Your task to perform on an android device: Clear the cart on costco.com. Search for acer predator on costco.com, select the first entry, and add it to the cart. Image 0: 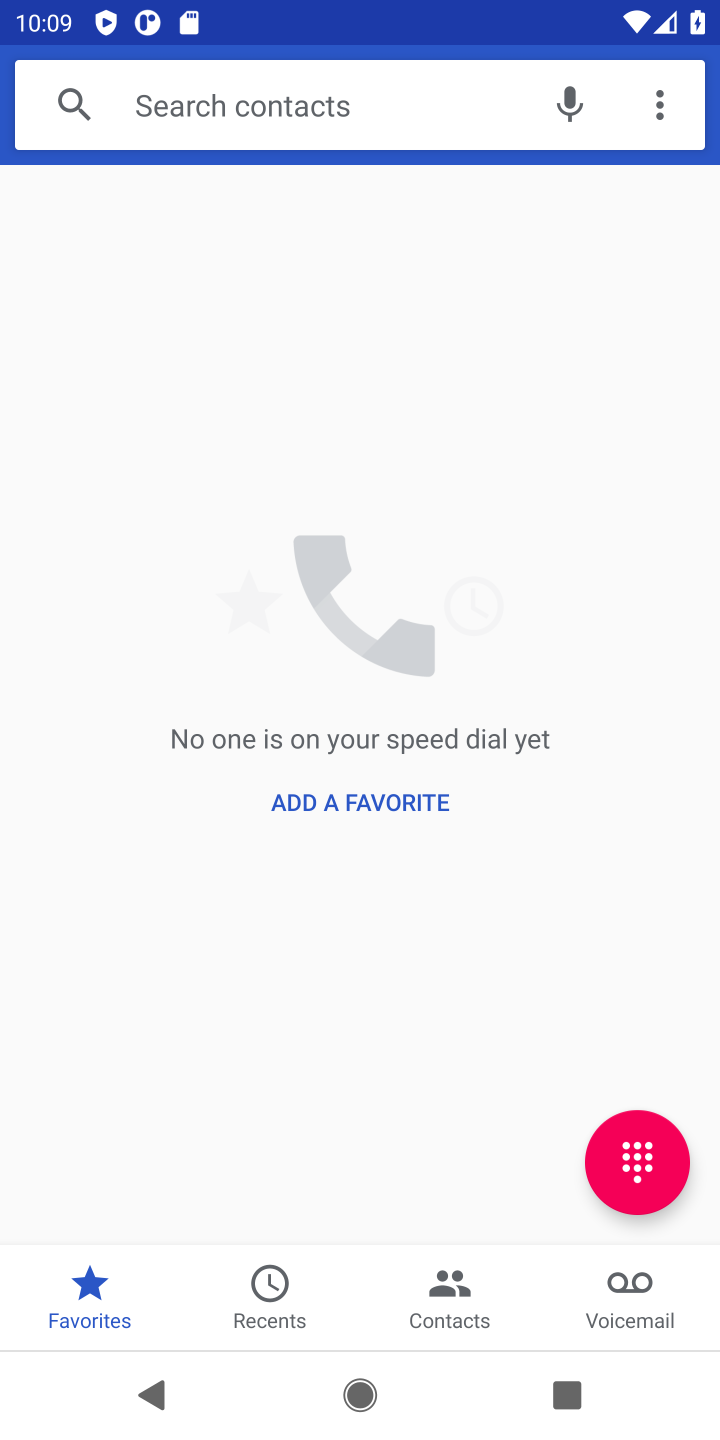
Step 0: press home button
Your task to perform on an android device: Clear the cart on costco.com. Search for acer predator on costco.com, select the first entry, and add it to the cart. Image 1: 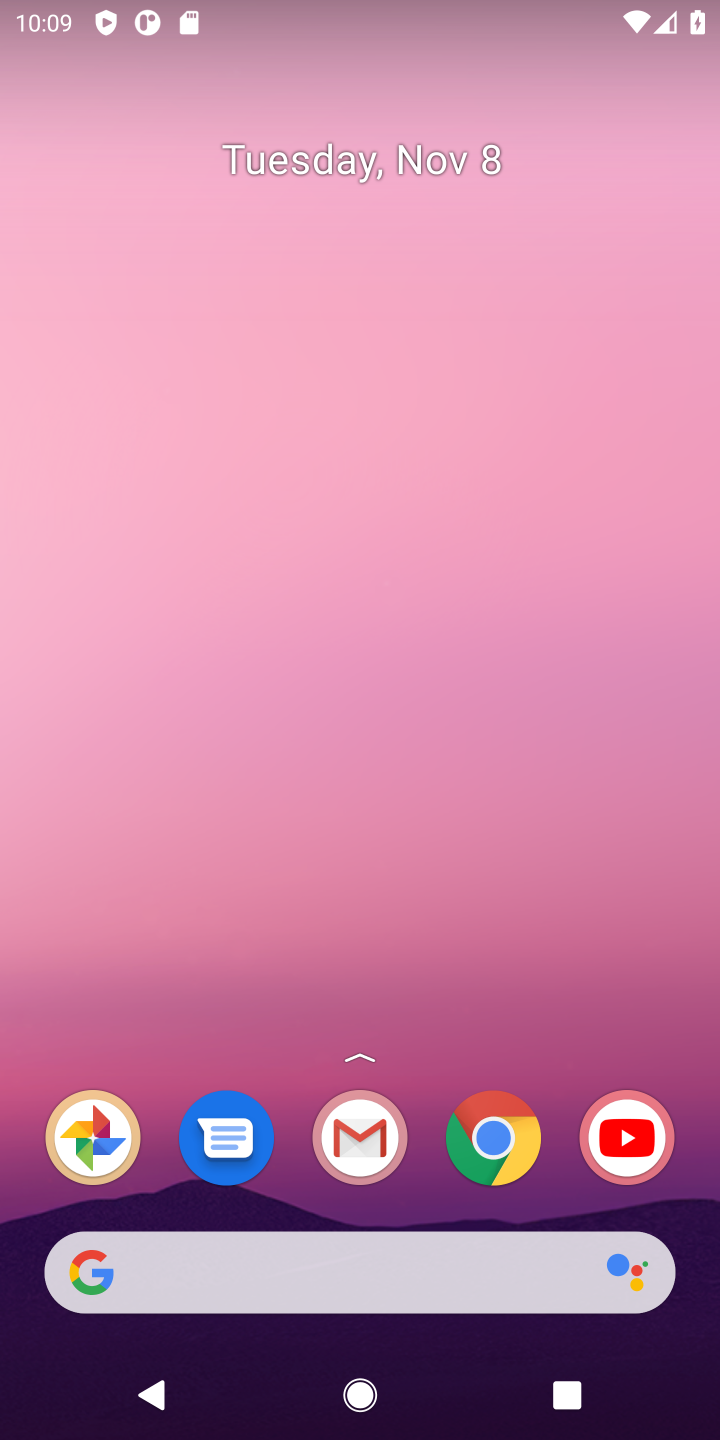
Step 1: click (505, 1136)
Your task to perform on an android device: Clear the cart on costco.com. Search for acer predator on costco.com, select the first entry, and add it to the cart. Image 2: 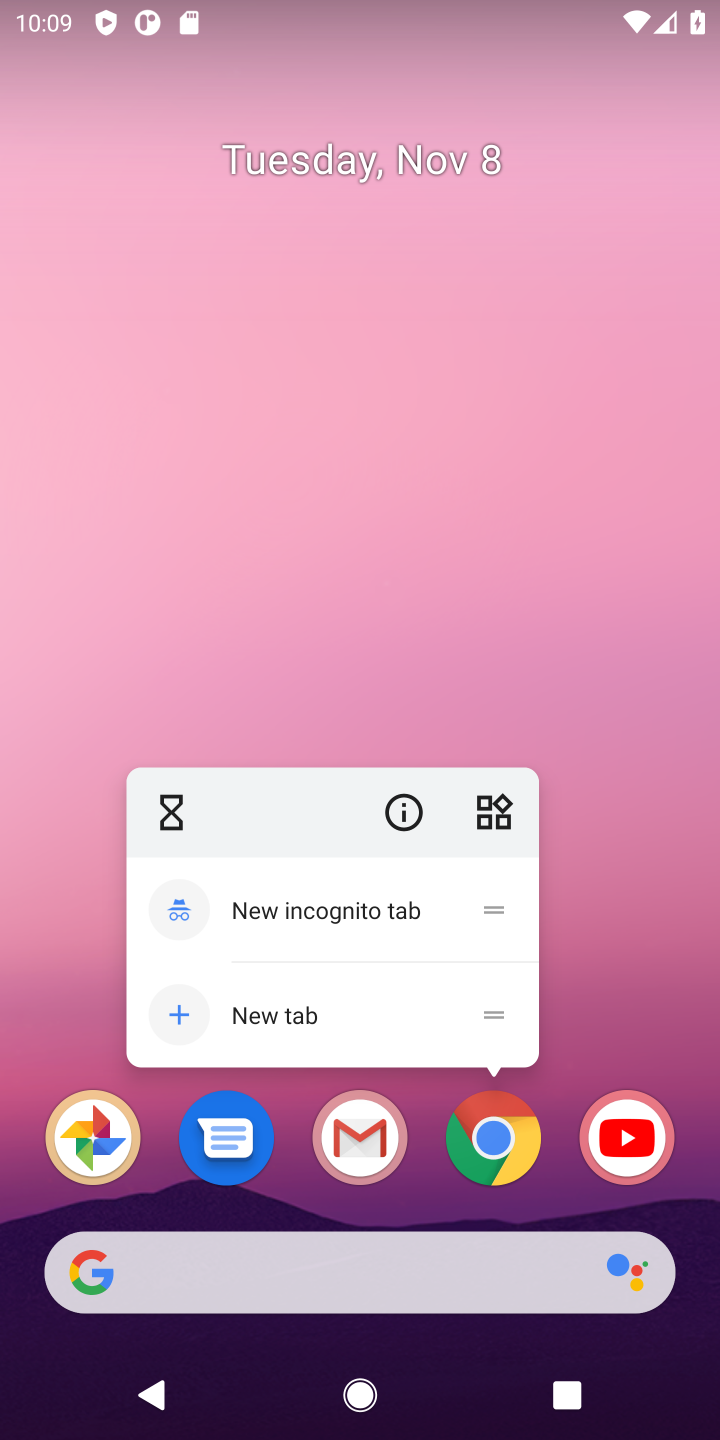
Step 2: click (499, 1128)
Your task to perform on an android device: Clear the cart on costco.com. Search for acer predator on costco.com, select the first entry, and add it to the cart. Image 3: 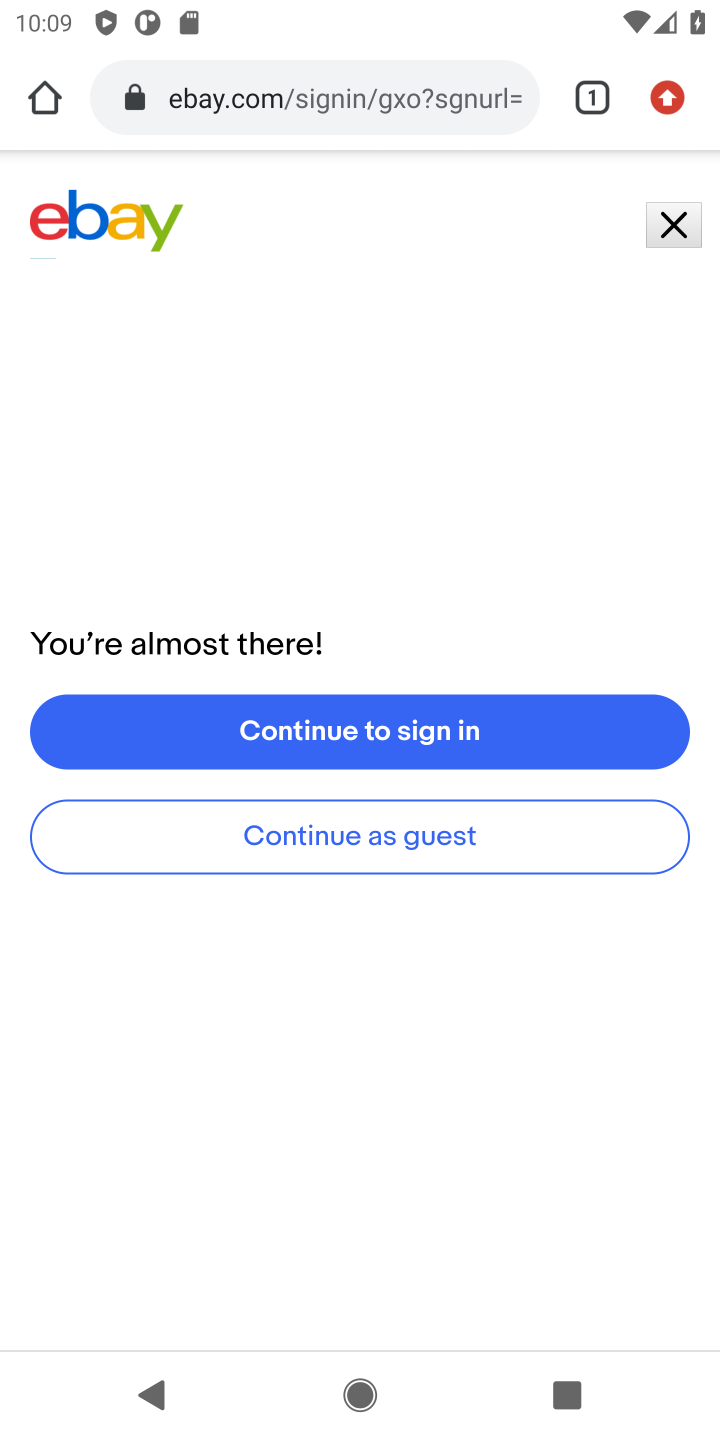
Step 3: click (363, 86)
Your task to perform on an android device: Clear the cart on costco.com. Search for acer predator on costco.com, select the first entry, and add it to the cart. Image 4: 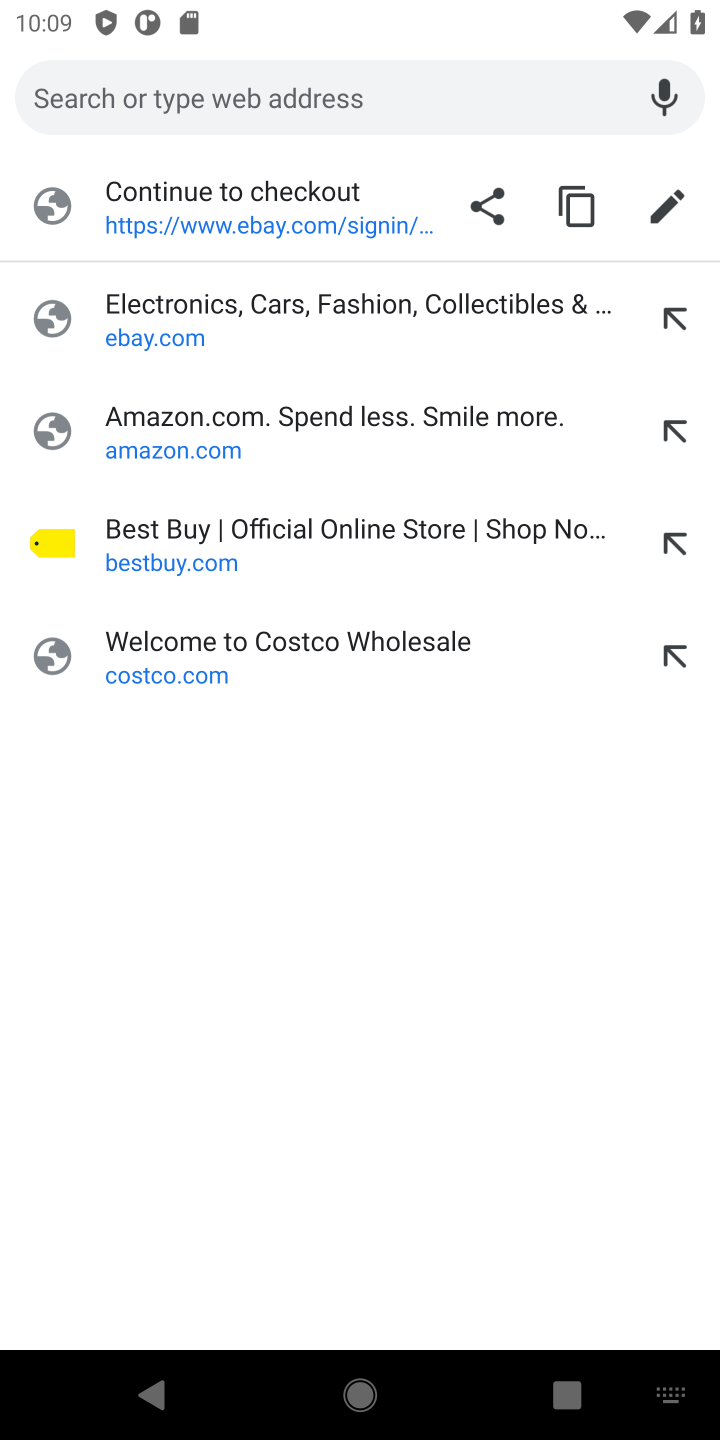
Step 4: click (183, 672)
Your task to perform on an android device: Clear the cart on costco.com. Search for acer predator on costco.com, select the first entry, and add it to the cart. Image 5: 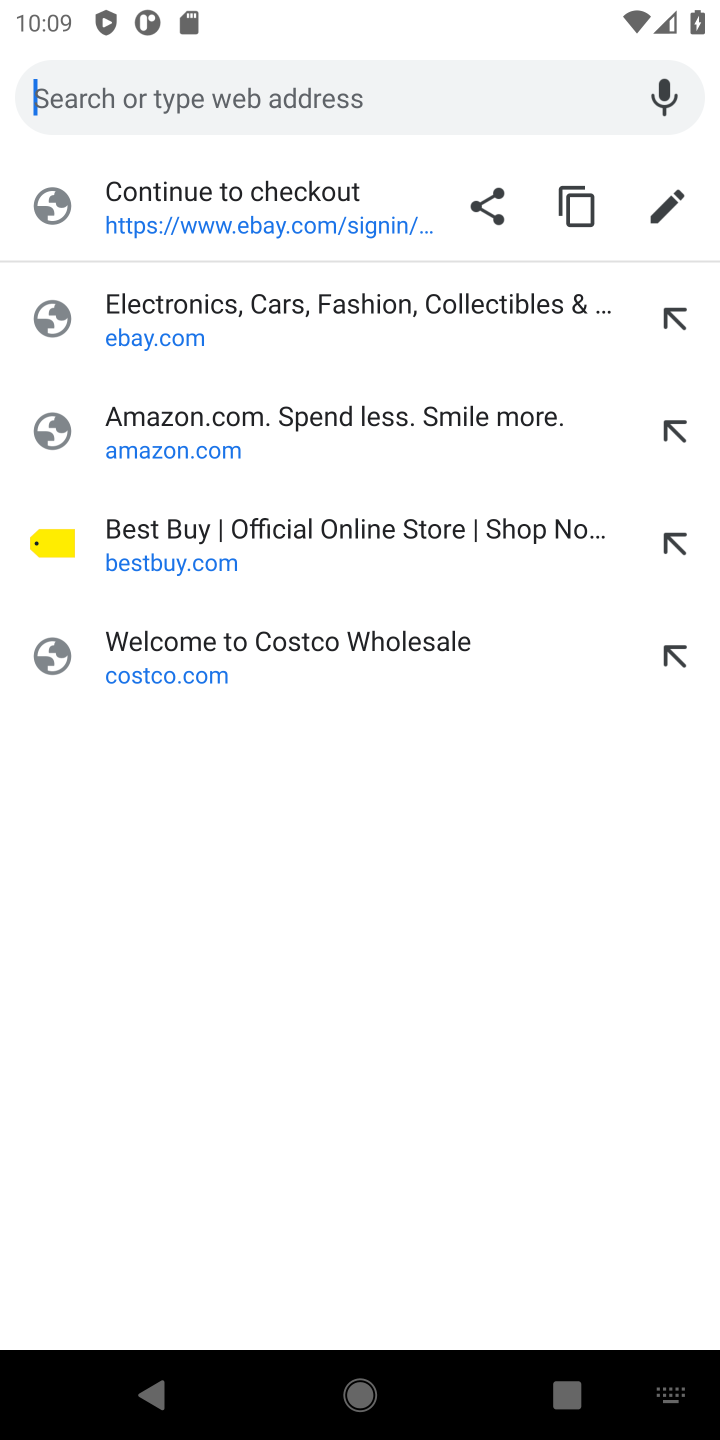
Step 5: click (186, 655)
Your task to perform on an android device: Clear the cart on costco.com. Search for acer predator on costco.com, select the first entry, and add it to the cart. Image 6: 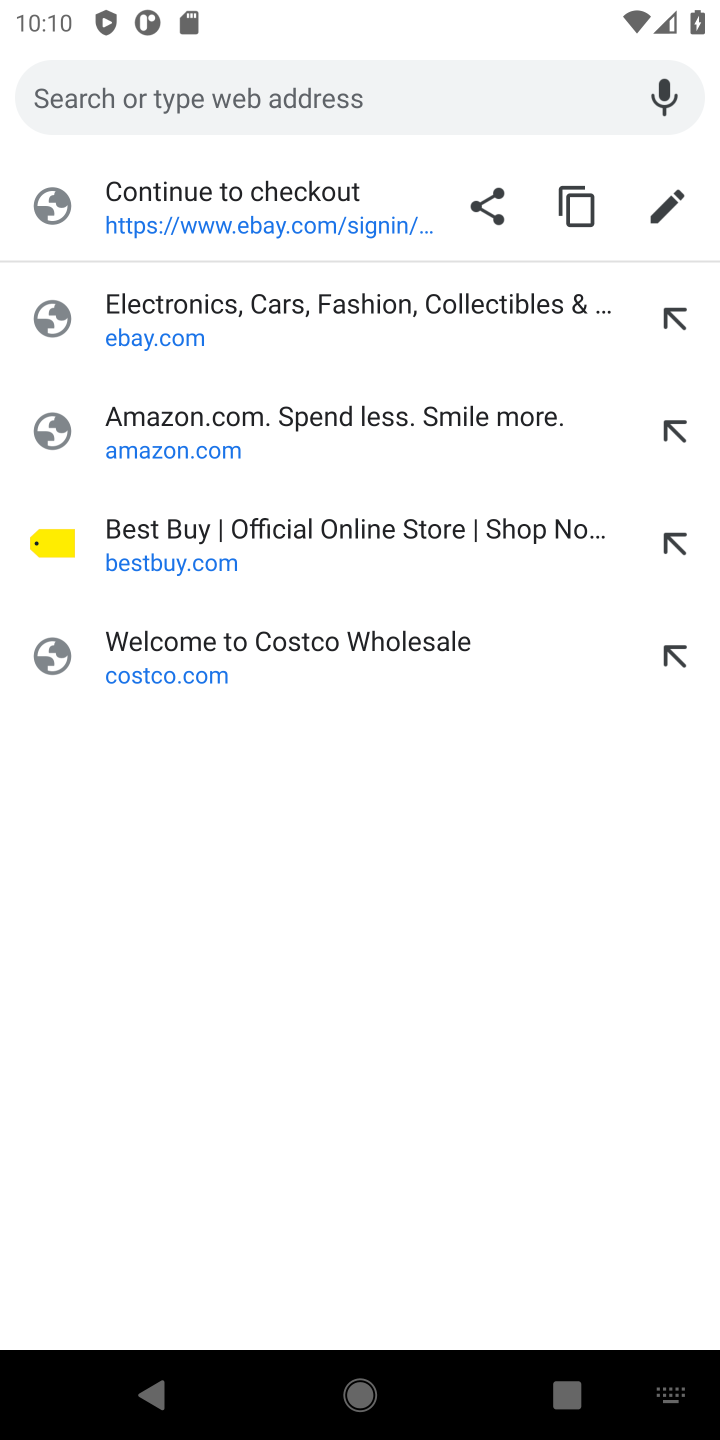
Step 6: click (169, 673)
Your task to perform on an android device: Clear the cart on costco.com. Search for acer predator on costco.com, select the first entry, and add it to the cart. Image 7: 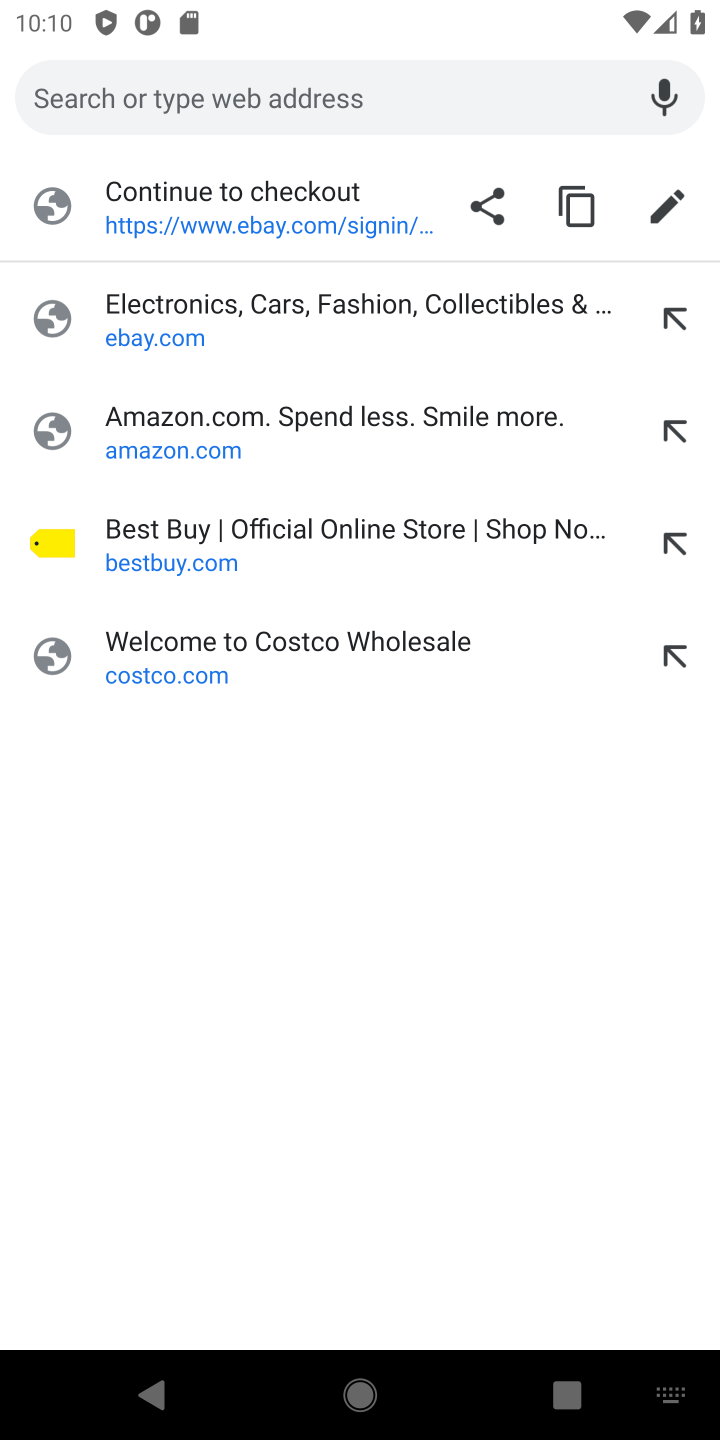
Step 7: click (144, 651)
Your task to perform on an android device: Clear the cart on costco.com. Search for acer predator on costco.com, select the first entry, and add it to the cart. Image 8: 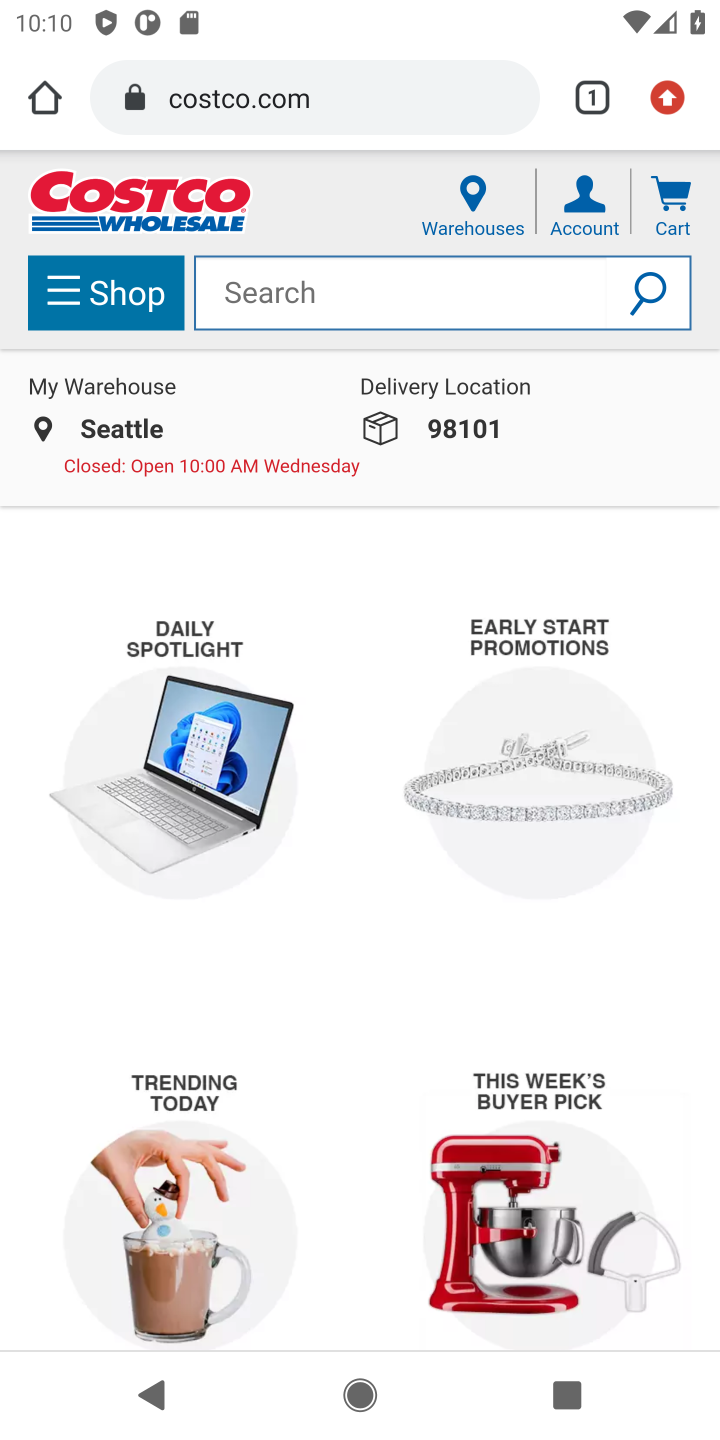
Step 8: click (374, 284)
Your task to perform on an android device: Clear the cart on costco.com. Search for acer predator on costco.com, select the first entry, and add it to the cart. Image 9: 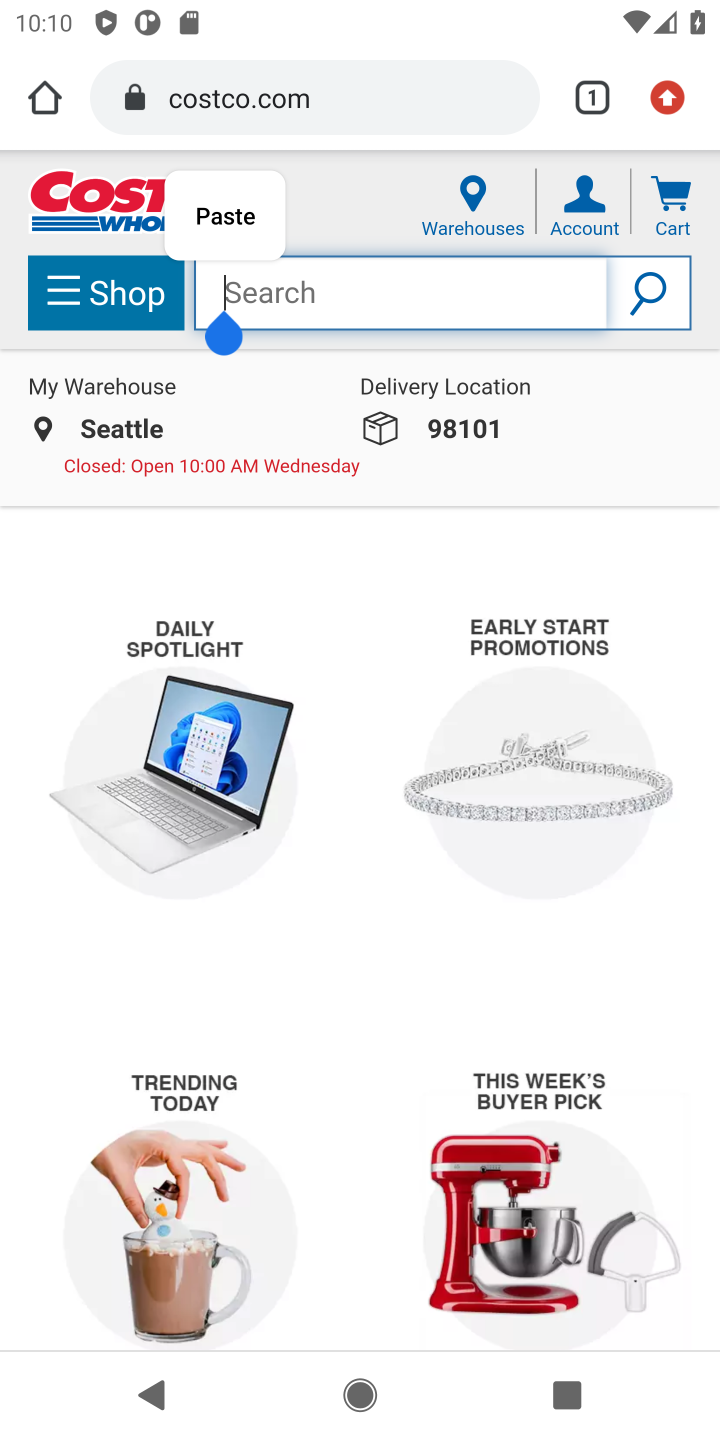
Step 9: type "acer predator"
Your task to perform on an android device: Clear the cart on costco.com. Search for acer predator on costco.com, select the first entry, and add it to the cart. Image 10: 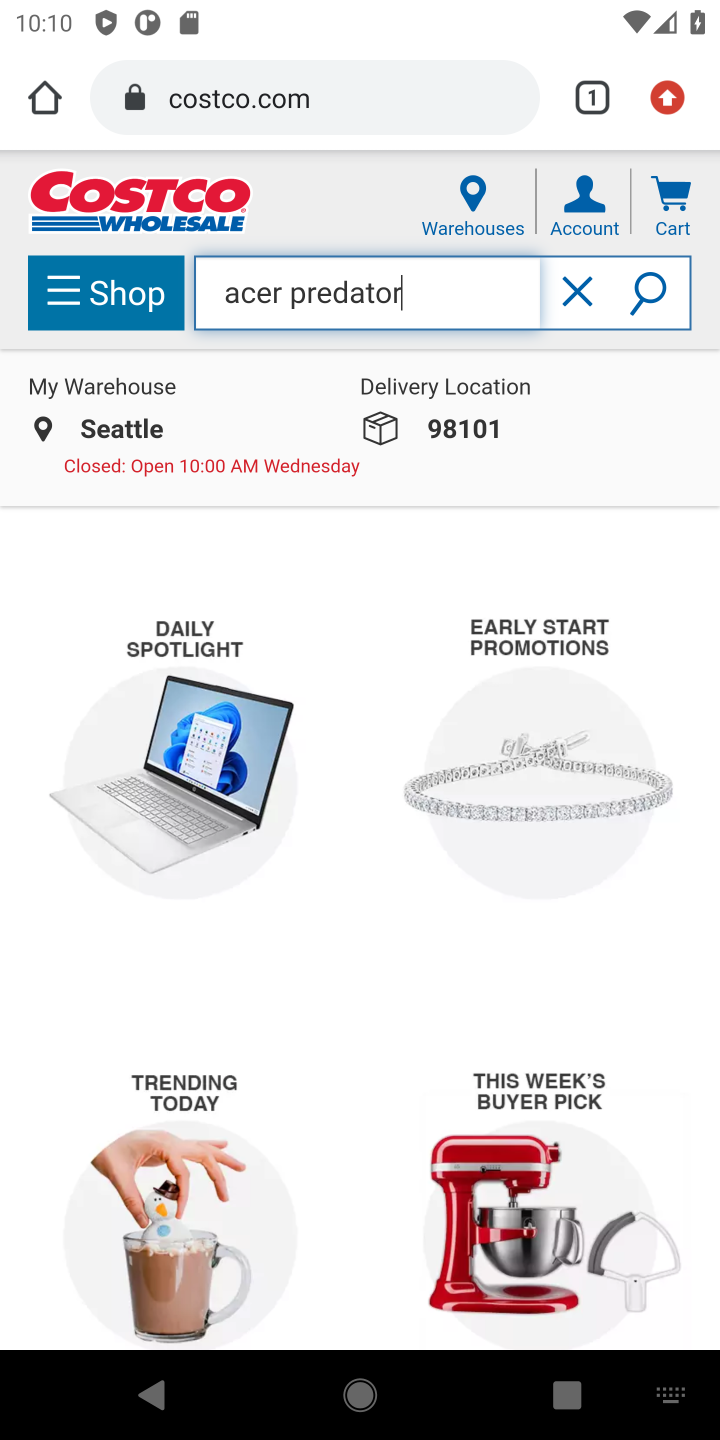
Step 10: press enter
Your task to perform on an android device: Clear the cart on costco.com. Search for acer predator on costco.com, select the first entry, and add it to the cart. Image 11: 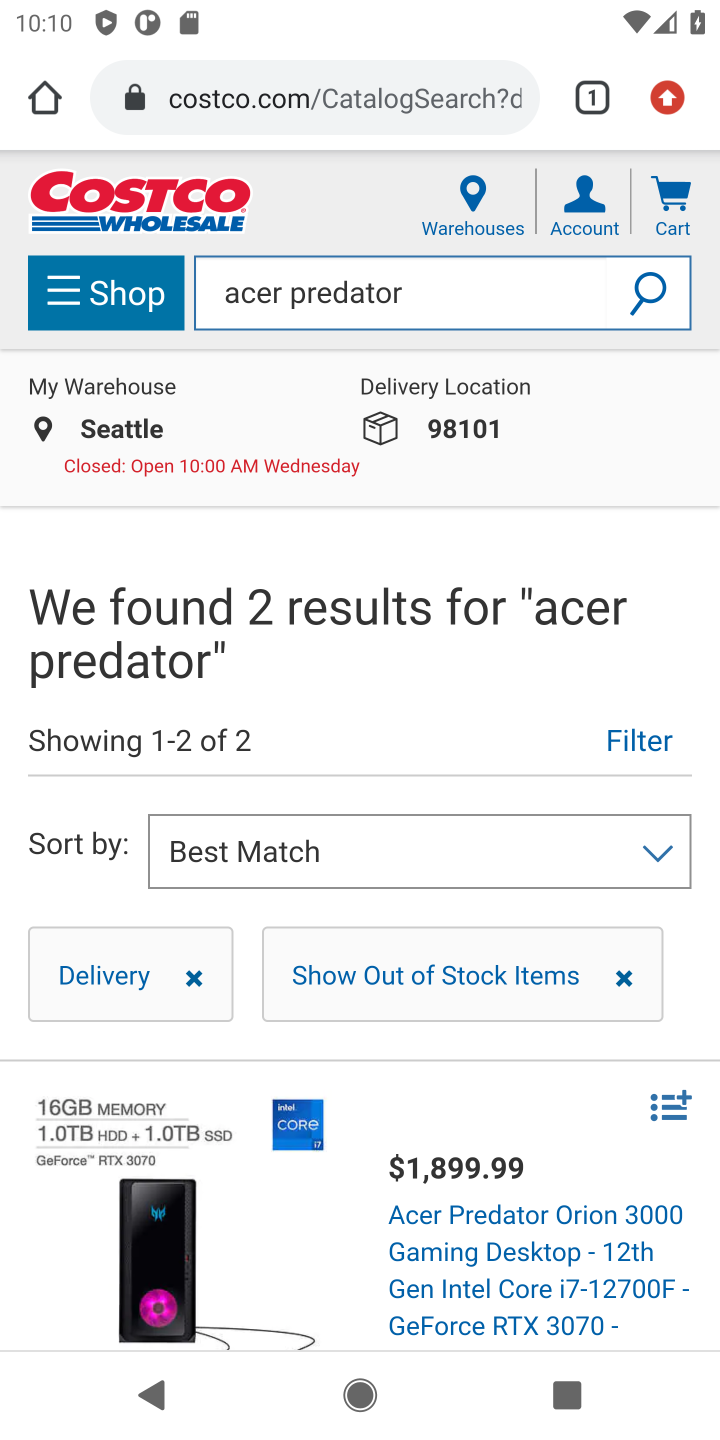
Step 11: drag from (297, 1218) to (421, 682)
Your task to perform on an android device: Clear the cart on costco.com. Search for acer predator on costco.com, select the first entry, and add it to the cart. Image 12: 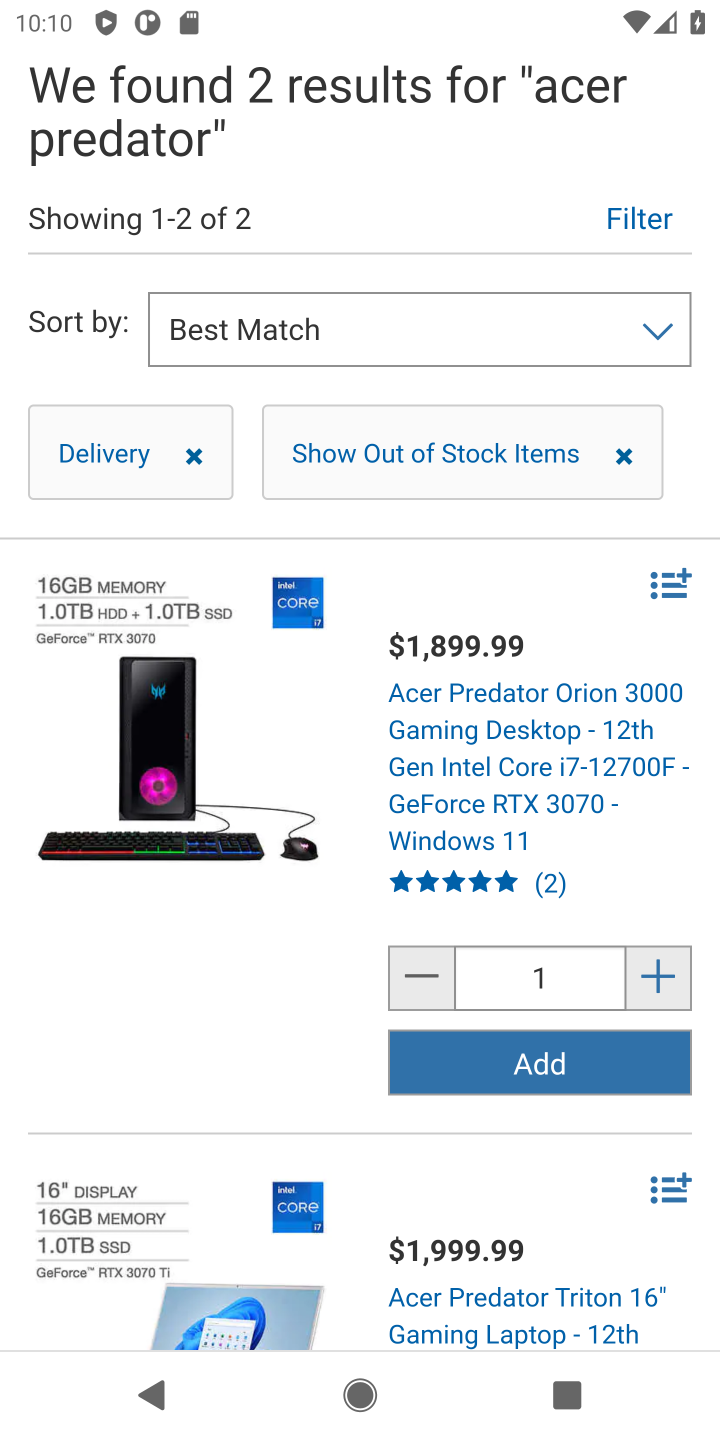
Step 12: click (541, 1064)
Your task to perform on an android device: Clear the cart on costco.com. Search for acer predator on costco.com, select the first entry, and add it to the cart. Image 13: 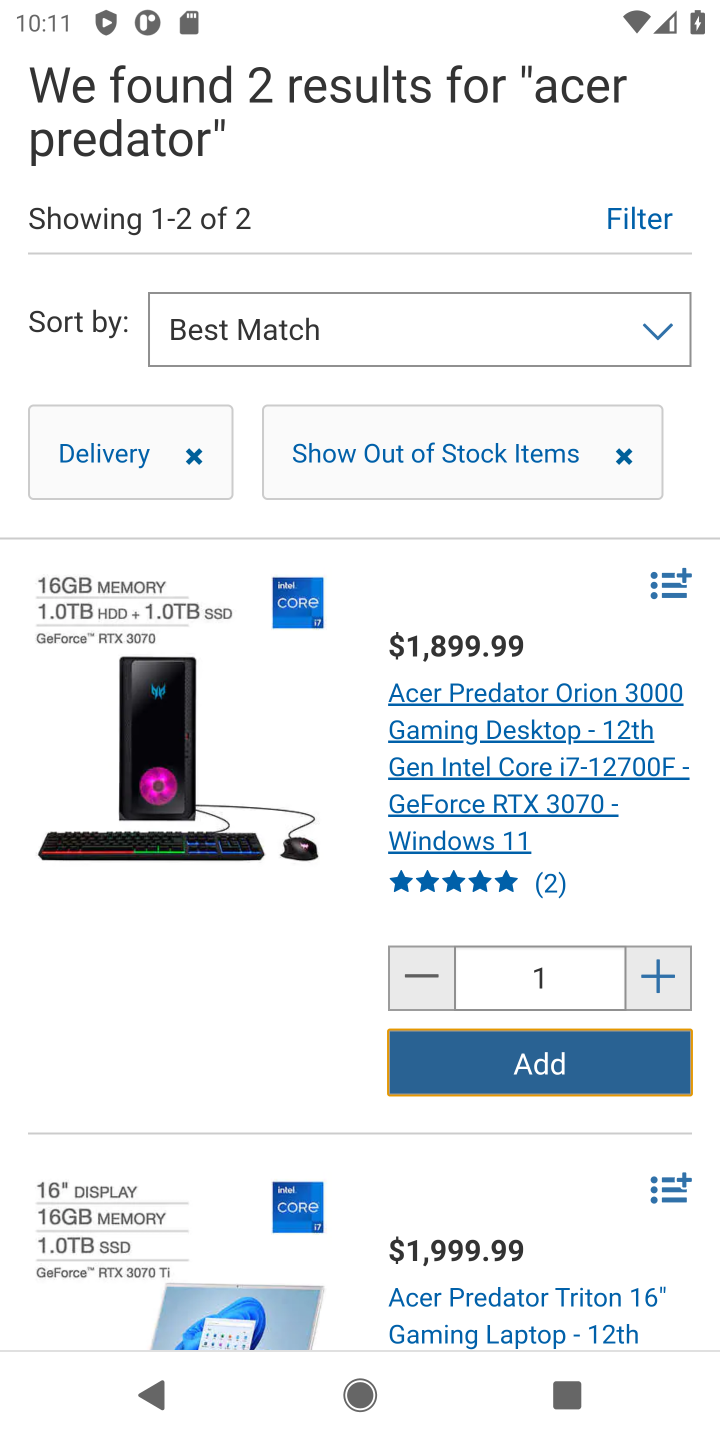
Step 13: click (533, 1066)
Your task to perform on an android device: Clear the cart on costco.com. Search for acer predator on costco.com, select the first entry, and add it to the cart. Image 14: 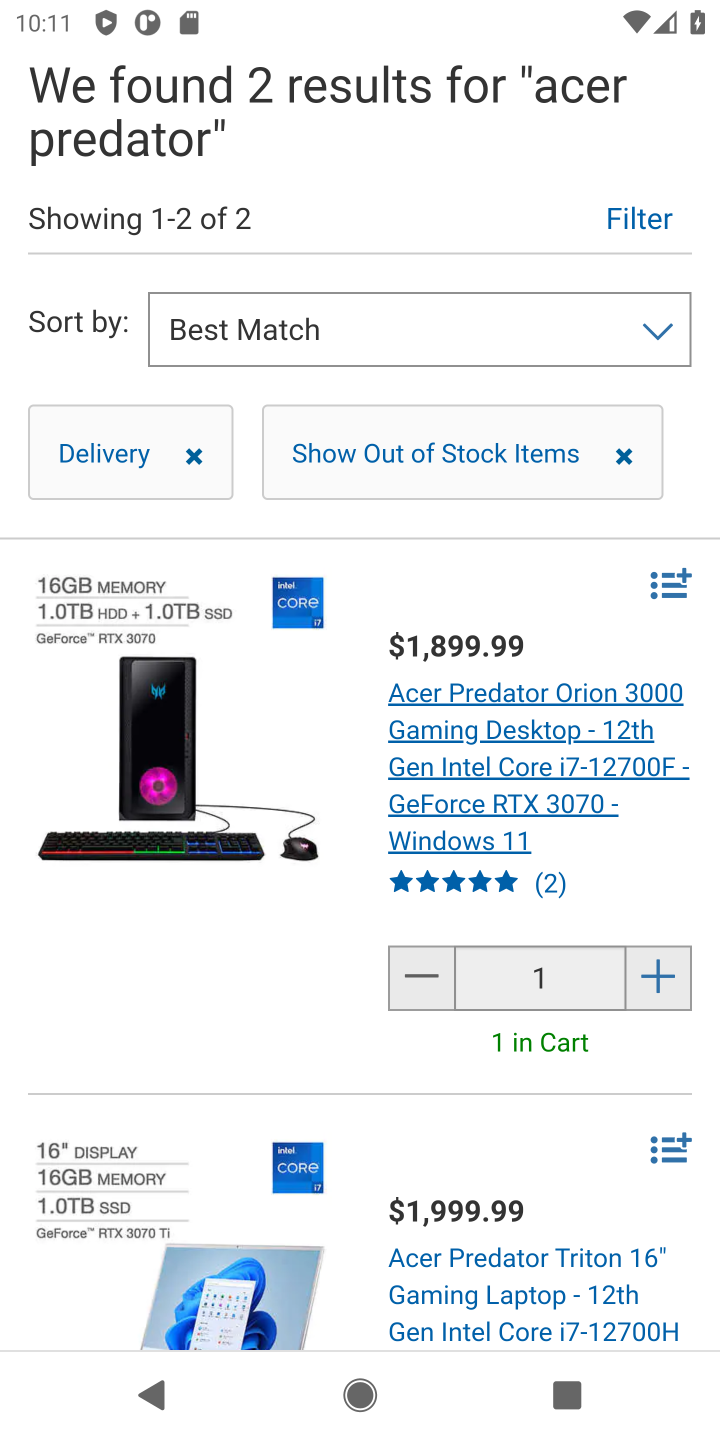
Step 14: drag from (564, 563) to (543, 1124)
Your task to perform on an android device: Clear the cart on costco.com. Search for acer predator on costco.com, select the first entry, and add it to the cart. Image 15: 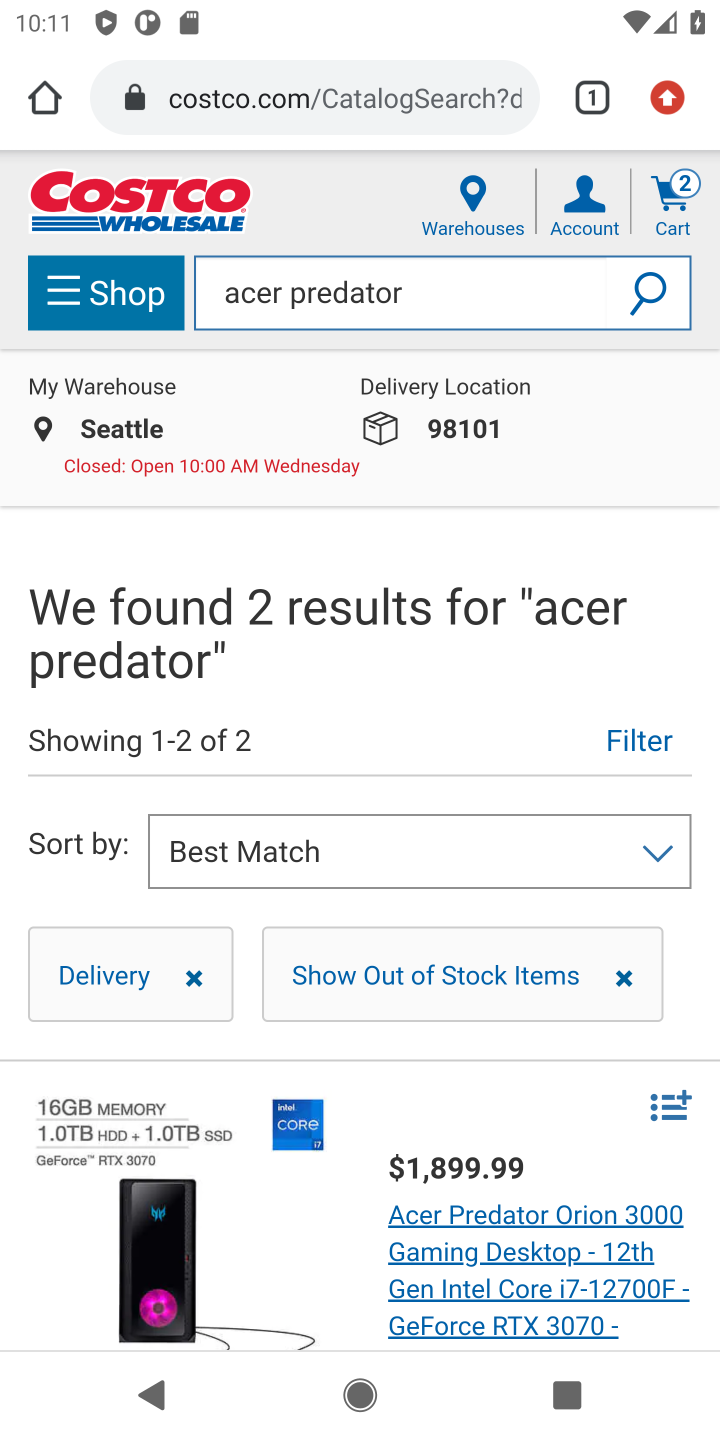
Step 15: click (675, 188)
Your task to perform on an android device: Clear the cart on costco.com. Search for acer predator on costco.com, select the first entry, and add it to the cart. Image 16: 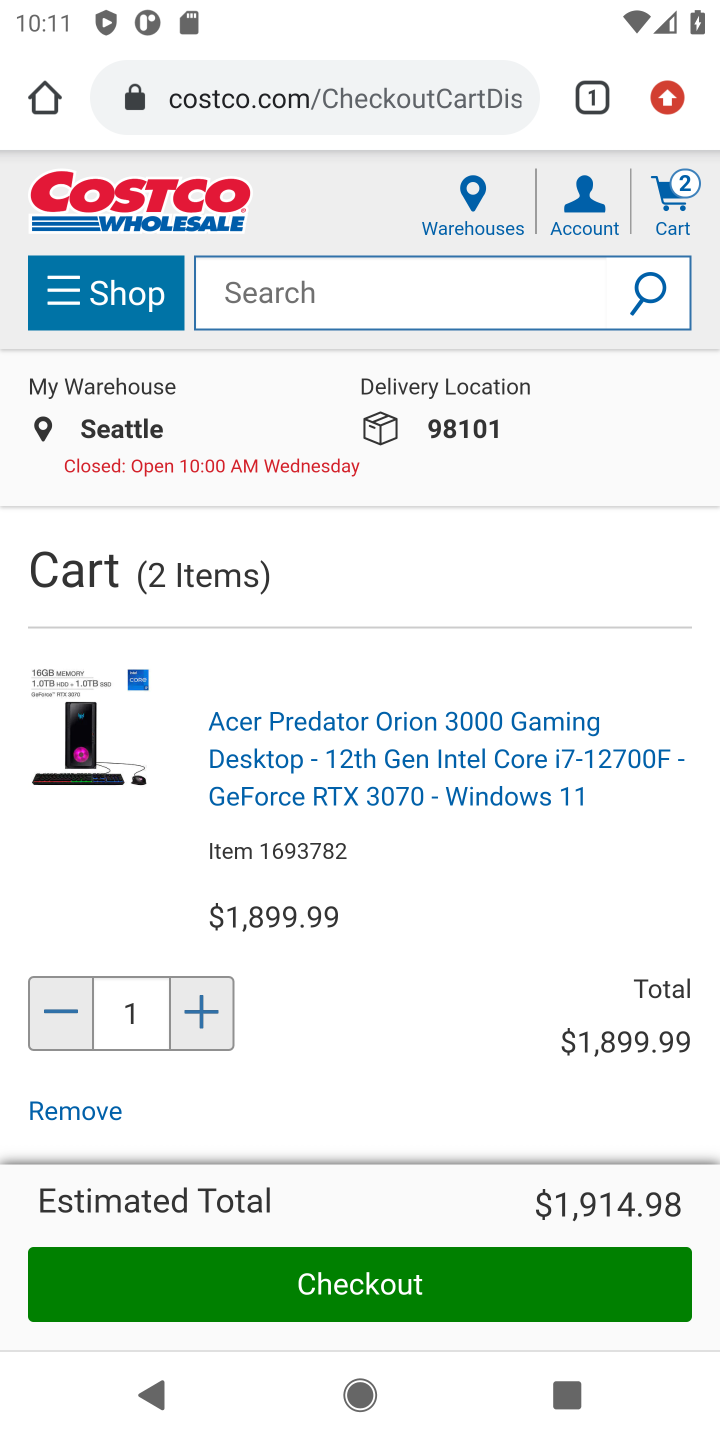
Step 16: task complete